Your task to perform on an android device: turn pop-ups on in chrome Image 0: 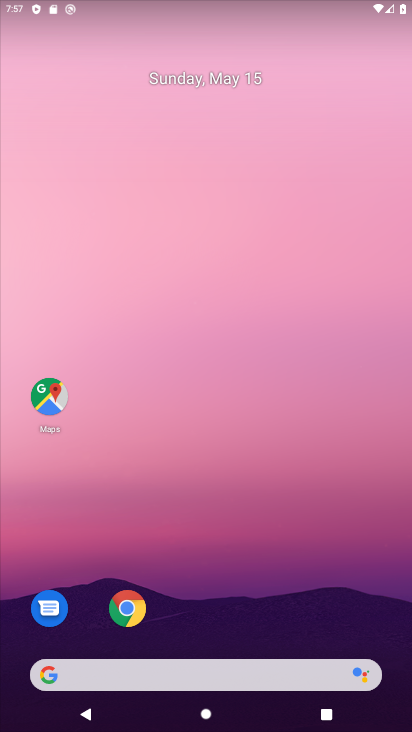
Step 0: drag from (349, 648) to (158, 215)
Your task to perform on an android device: turn pop-ups on in chrome Image 1: 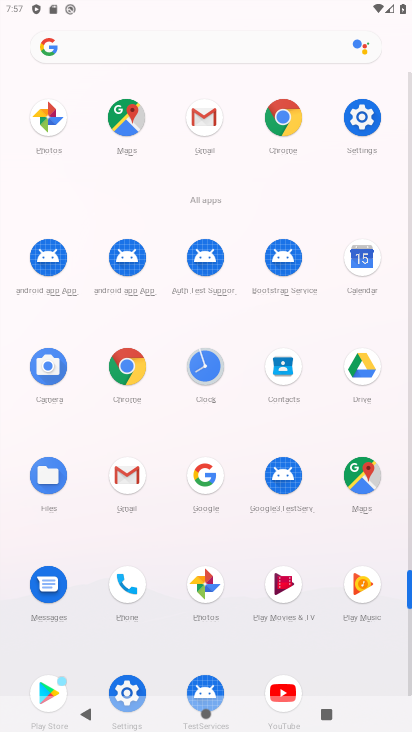
Step 1: click (284, 118)
Your task to perform on an android device: turn pop-ups on in chrome Image 2: 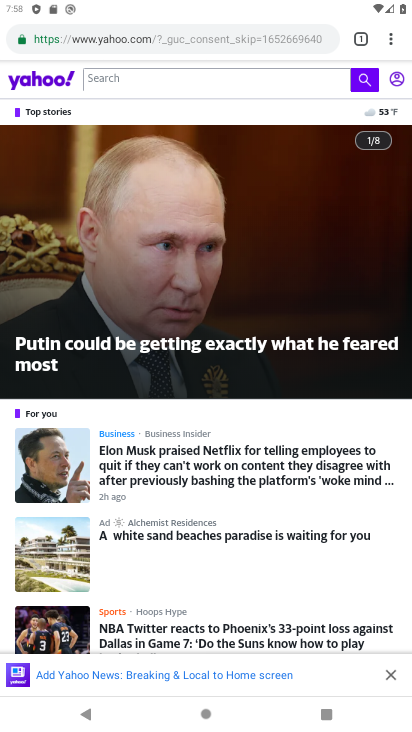
Step 2: drag from (390, 38) to (262, 471)
Your task to perform on an android device: turn pop-ups on in chrome Image 3: 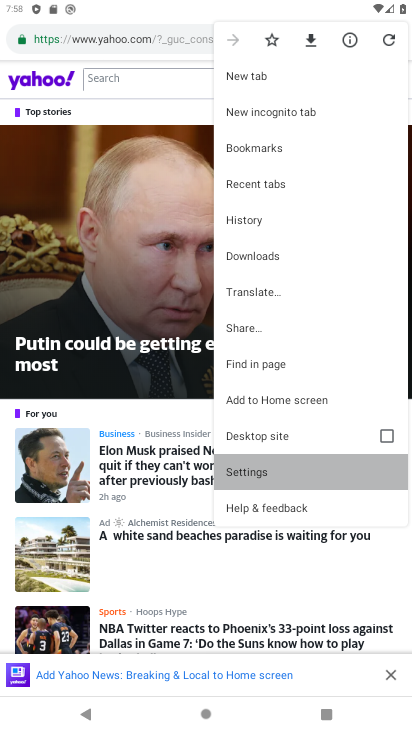
Step 3: click (262, 471)
Your task to perform on an android device: turn pop-ups on in chrome Image 4: 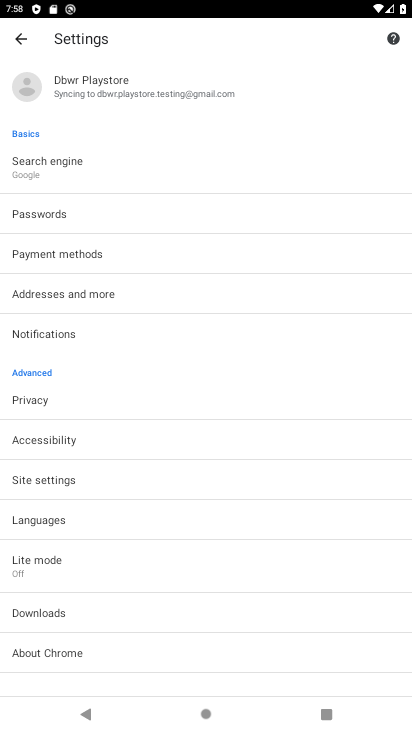
Step 4: click (34, 480)
Your task to perform on an android device: turn pop-ups on in chrome Image 5: 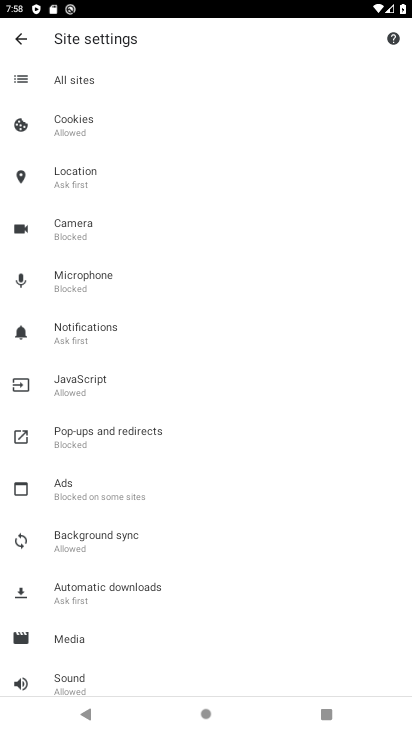
Step 5: click (70, 446)
Your task to perform on an android device: turn pop-ups on in chrome Image 6: 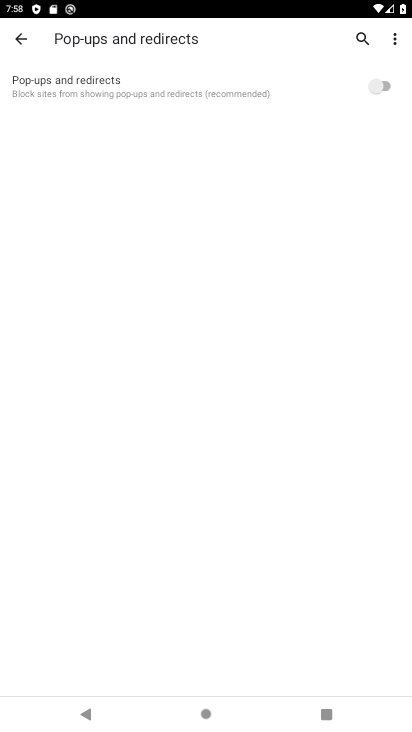
Step 6: click (371, 89)
Your task to perform on an android device: turn pop-ups on in chrome Image 7: 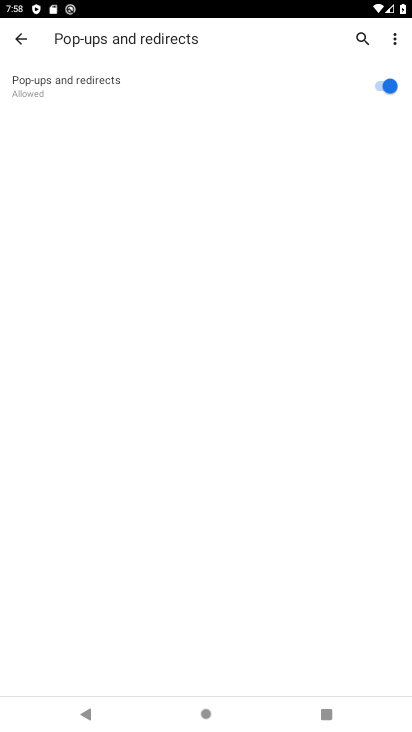
Step 7: task complete